Your task to perform on an android device: Do I have any events today? Image 0: 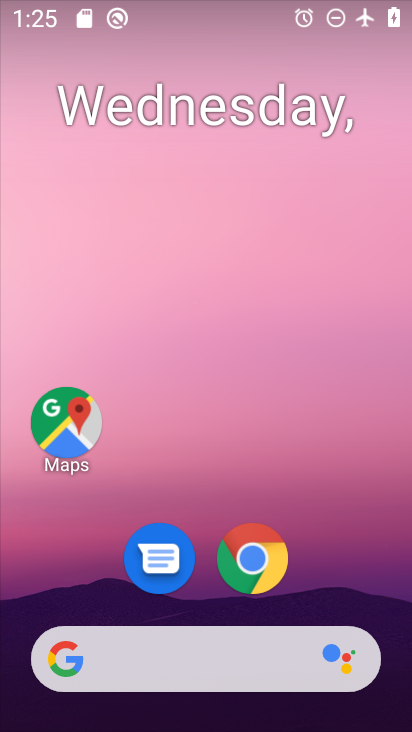
Step 0: drag from (388, 631) to (253, 58)
Your task to perform on an android device: Do I have any events today? Image 1: 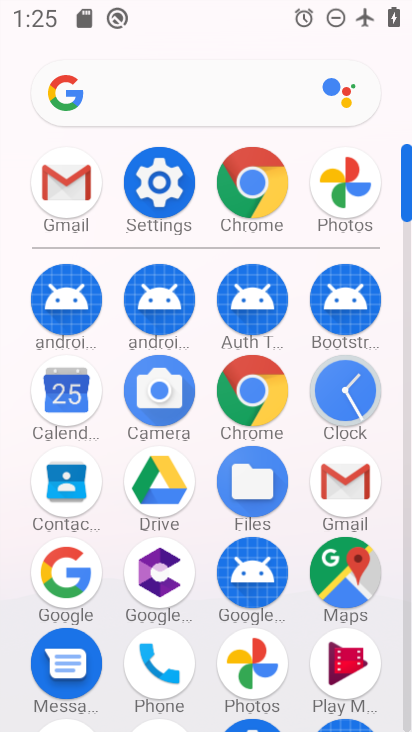
Step 1: click (62, 391)
Your task to perform on an android device: Do I have any events today? Image 2: 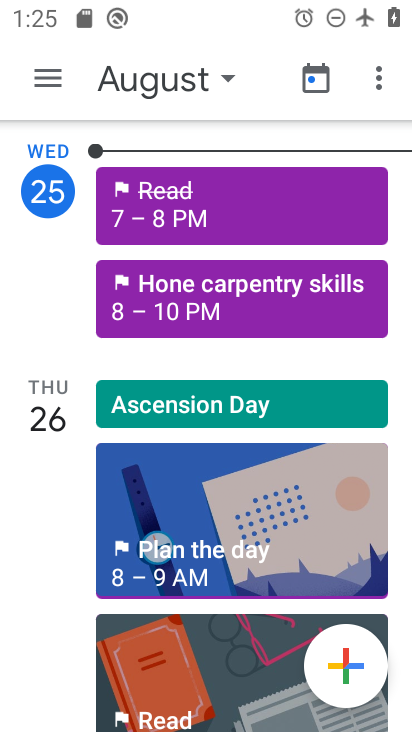
Step 2: click (146, 79)
Your task to perform on an android device: Do I have any events today? Image 3: 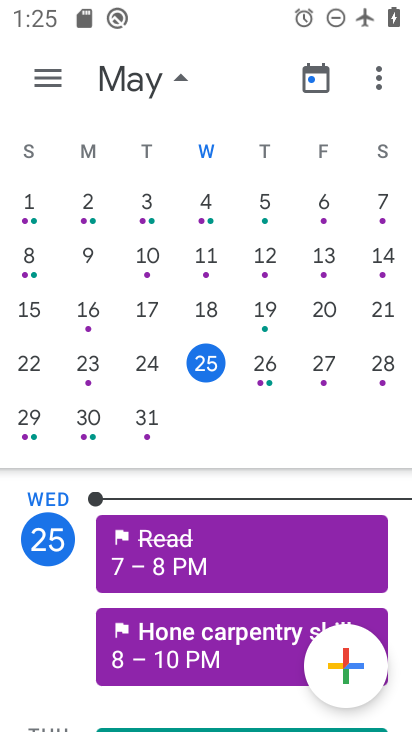
Step 3: drag from (64, 372) to (385, 354)
Your task to perform on an android device: Do I have any events today? Image 4: 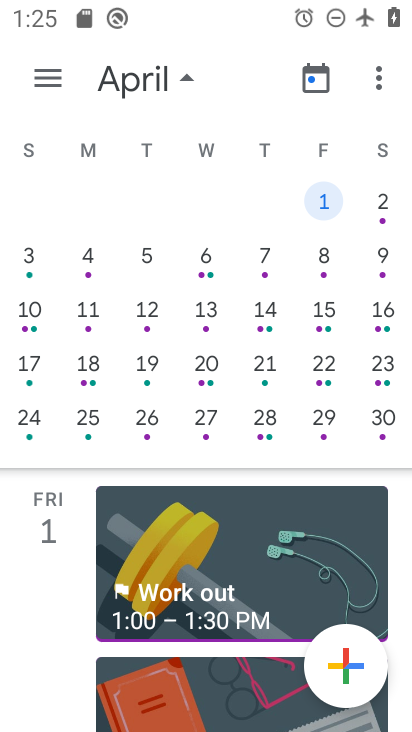
Step 4: drag from (51, 293) to (398, 257)
Your task to perform on an android device: Do I have any events today? Image 5: 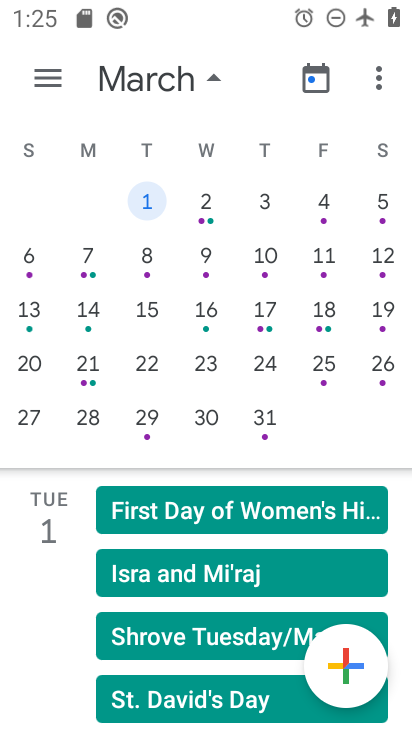
Step 5: drag from (43, 340) to (353, 265)
Your task to perform on an android device: Do I have any events today? Image 6: 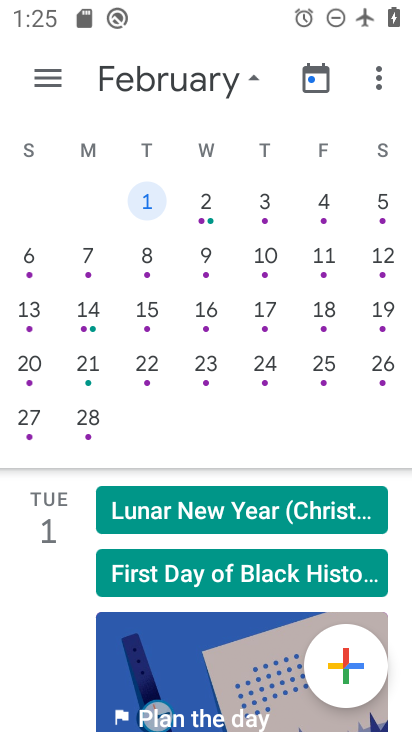
Step 6: drag from (354, 265) to (57, 259)
Your task to perform on an android device: Do I have any events today? Image 7: 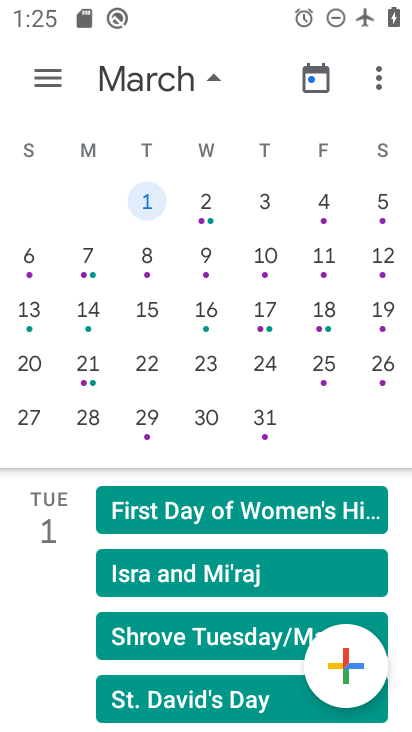
Step 7: drag from (328, 298) to (73, 308)
Your task to perform on an android device: Do I have any events today? Image 8: 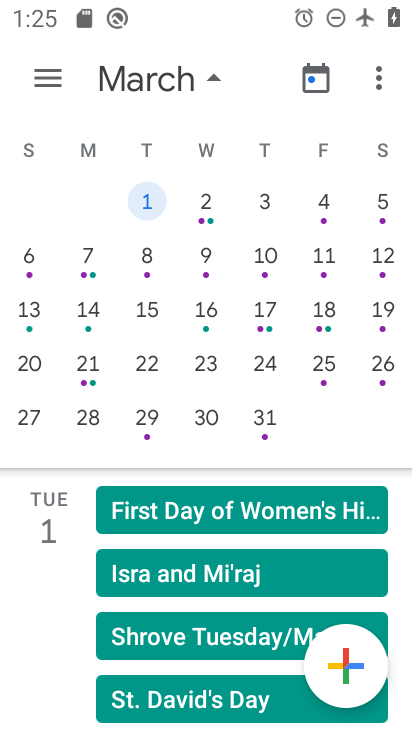
Step 8: drag from (367, 303) to (0, 294)
Your task to perform on an android device: Do I have any events today? Image 9: 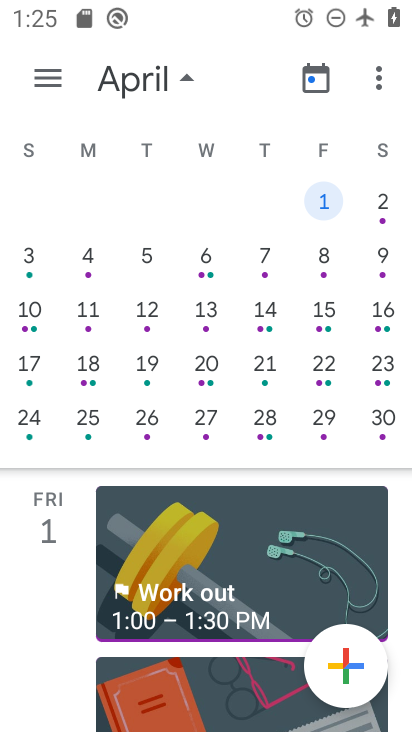
Step 9: drag from (325, 336) to (18, 314)
Your task to perform on an android device: Do I have any events today? Image 10: 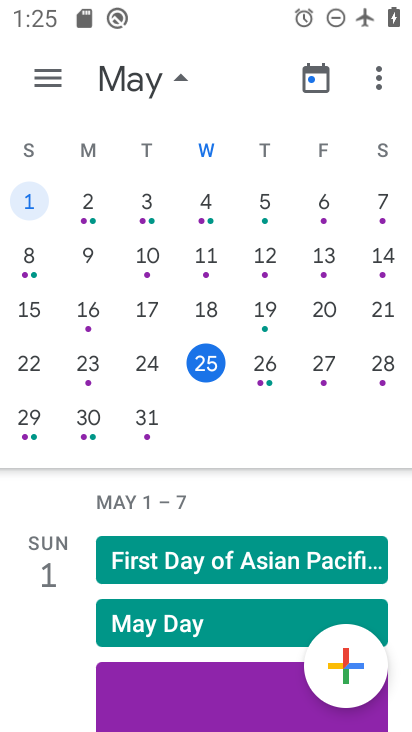
Step 10: click (197, 372)
Your task to perform on an android device: Do I have any events today? Image 11: 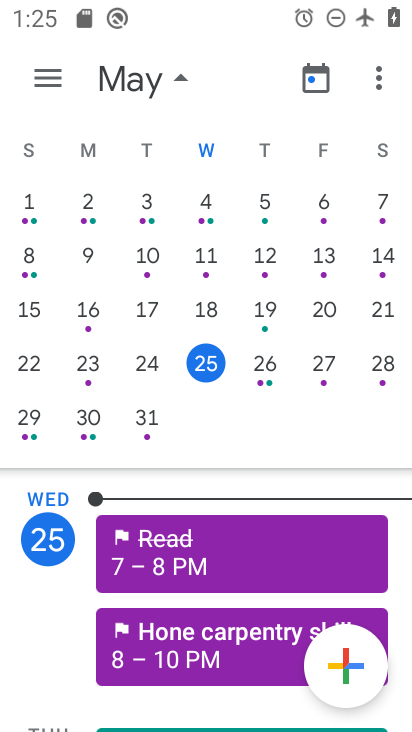
Step 11: click (232, 648)
Your task to perform on an android device: Do I have any events today? Image 12: 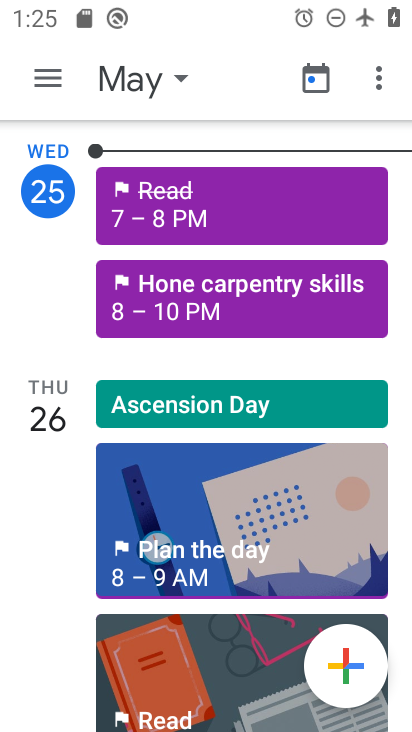
Step 12: click (243, 303)
Your task to perform on an android device: Do I have any events today? Image 13: 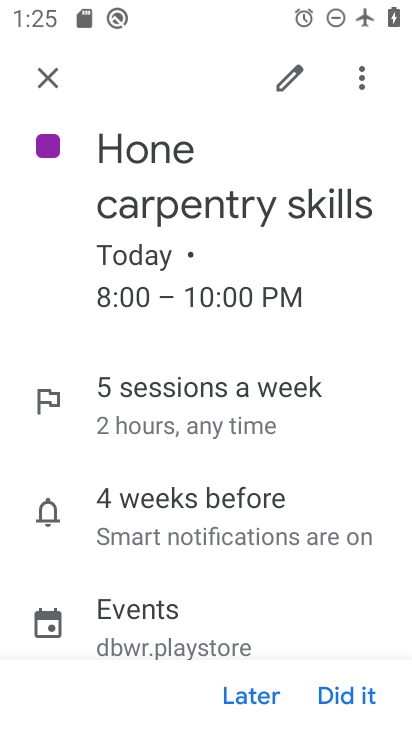
Step 13: task complete